Your task to perform on an android device: Show me recent news Image 0: 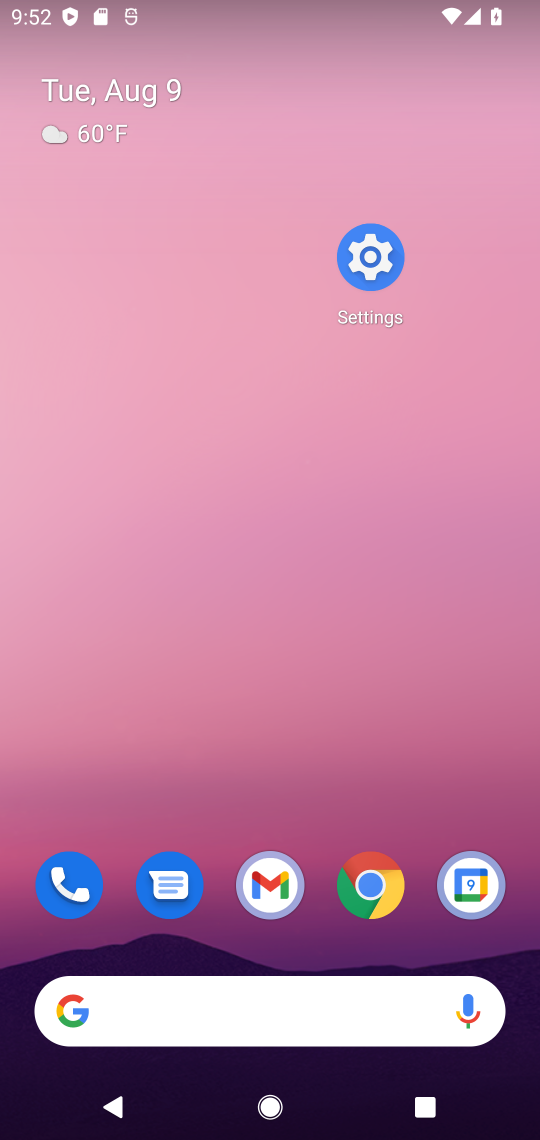
Step 0: press home button
Your task to perform on an android device: Show me recent news Image 1: 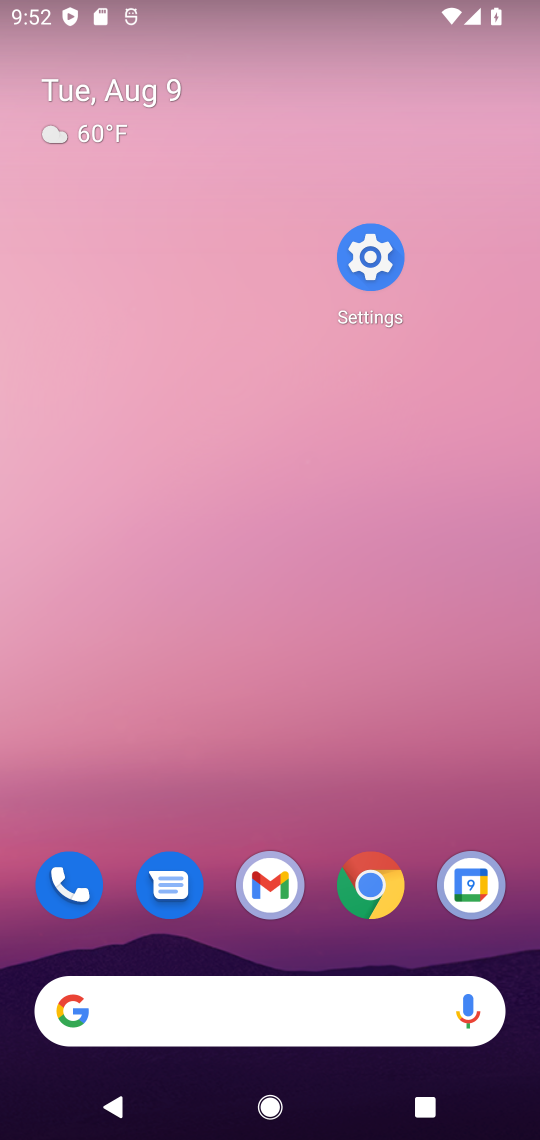
Step 1: task complete